Your task to perform on an android device: Do I have any events today? Image 0: 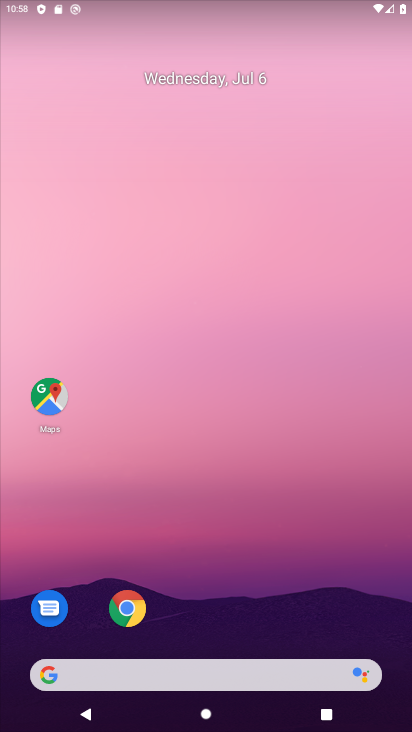
Step 0: click (186, 173)
Your task to perform on an android device: Do I have any events today? Image 1: 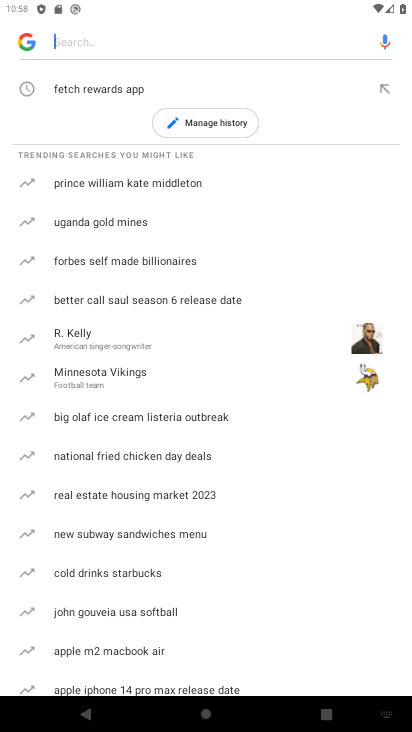
Step 1: press back button
Your task to perform on an android device: Do I have any events today? Image 2: 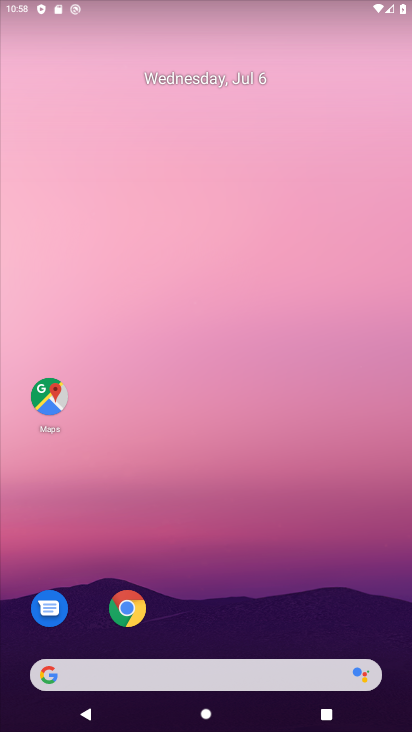
Step 2: drag from (228, 647) to (100, 171)
Your task to perform on an android device: Do I have any events today? Image 3: 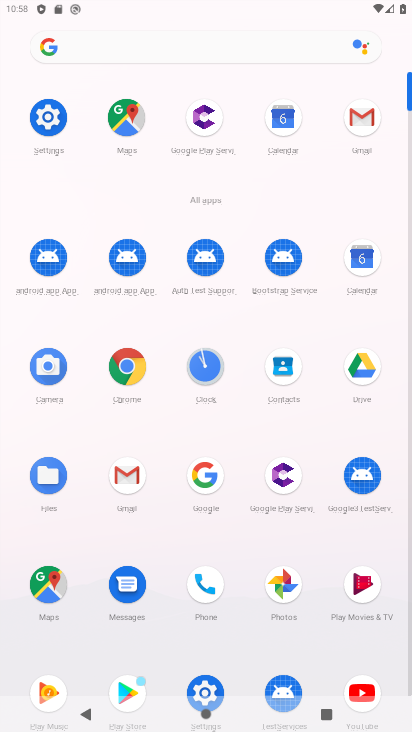
Step 3: click (357, 255)
Your task to perform on an android device: Do I have any events today? Image 4: 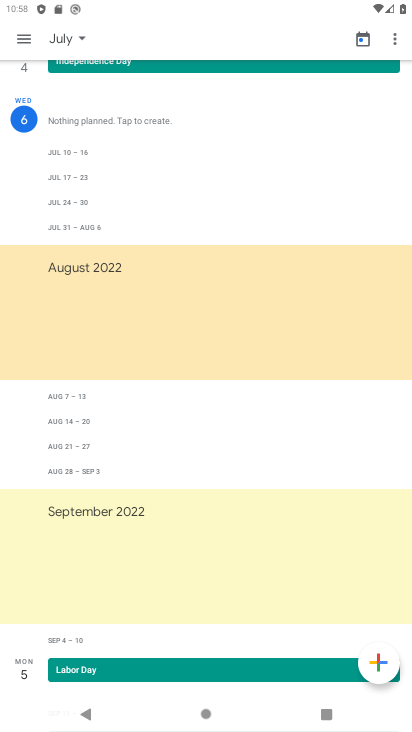
Step 4: drag from (84, 170) to (177, 642)
Your task to perform on an android device: Do I have any events today? Image 5: 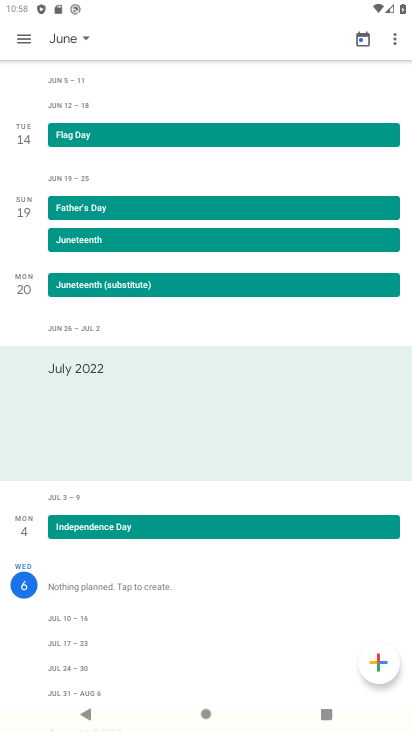
Step 5: drag from (129, 225) to (185, 731)
Your task to perform on an android device: Do I have any events today? Image 6: 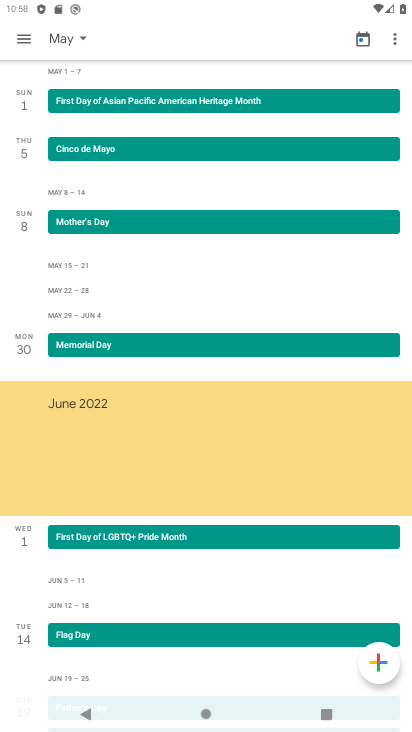
Step 6: drag from (155, 548) to (155, 682)
Your task to perform on an android device: Do I have any events today? Image 7: 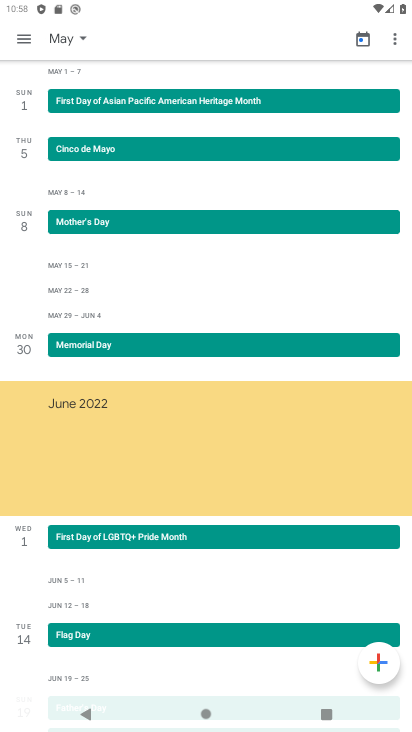
Step 7: click (86, 40)
Your task to perform on an android device: Do I have any events today? Image 8: 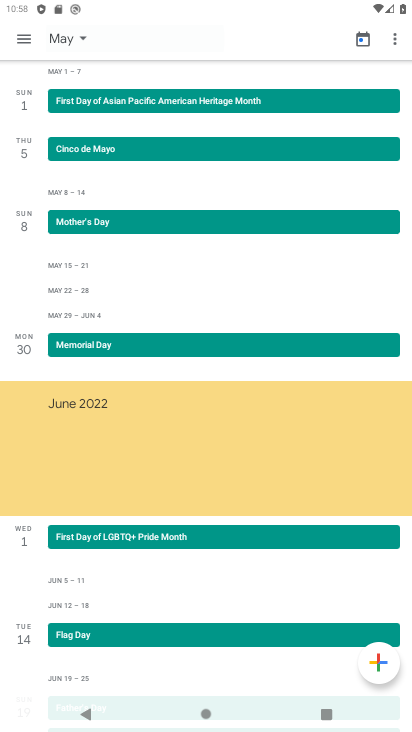
Step 8: click (86, 40)
Your task to perform on an android device: Do I have any events today? Image 9: 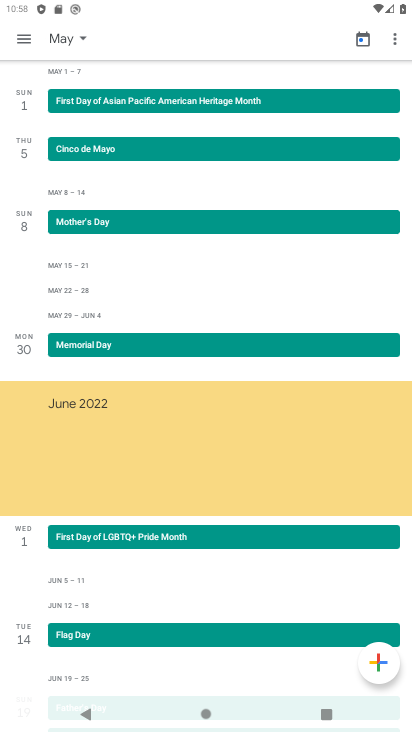
Step 9: click (86, 40)
Your task to perform on an android device: Do I have any events today? Image 10: 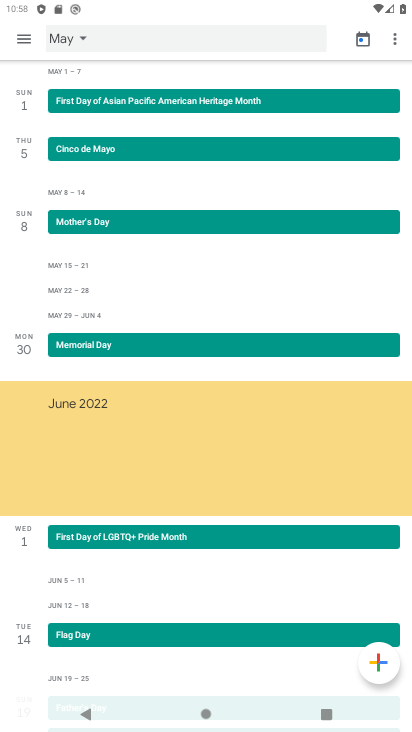
Step 10: click (86, 40)
Your task to perform on an android device: Do I have any events today? Image 11: 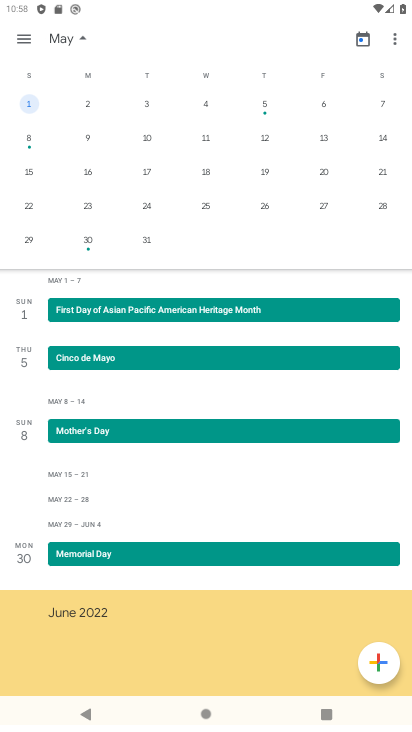
Step 11: click (86, 40)
Your task to perform on an android device: Do I have any events today? Image 12: 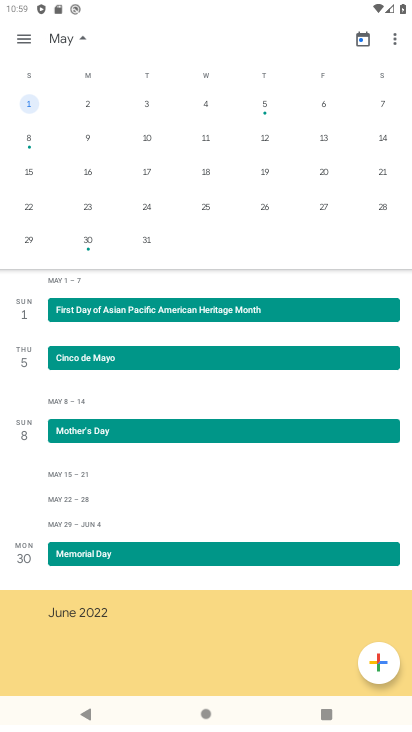
Step 12: click (79, 41)
Your task to perform on an android device: Do I have any events today? Image 13: 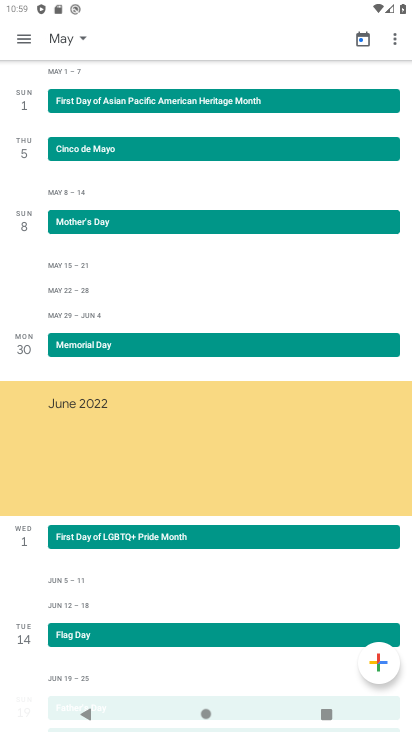
Step 13: drag from (202, 520) to (146, 138)
Your task to perform on an android device: Do I have any events today? Image 14: 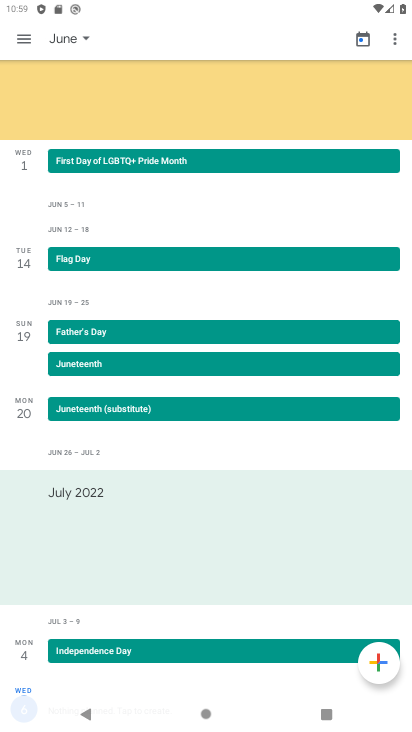
Step 14: drag from (169, 442) to (154, 201)
Your task to perform on an android device: Do I have any events today? Image 15: 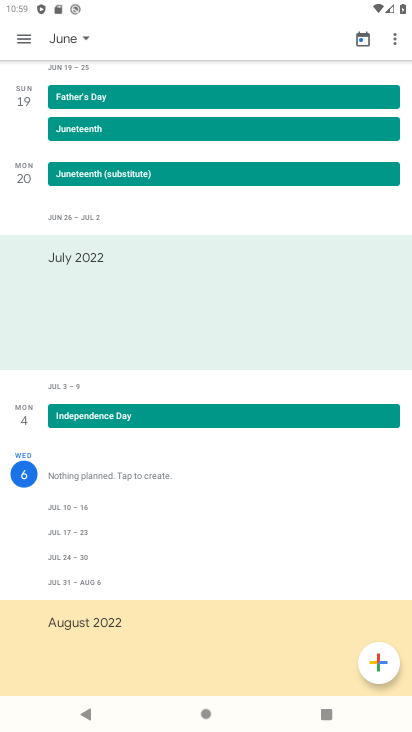
Step 15: click (90, 270)
Your task to perform on an android device: Do I have any events today? Image 16: 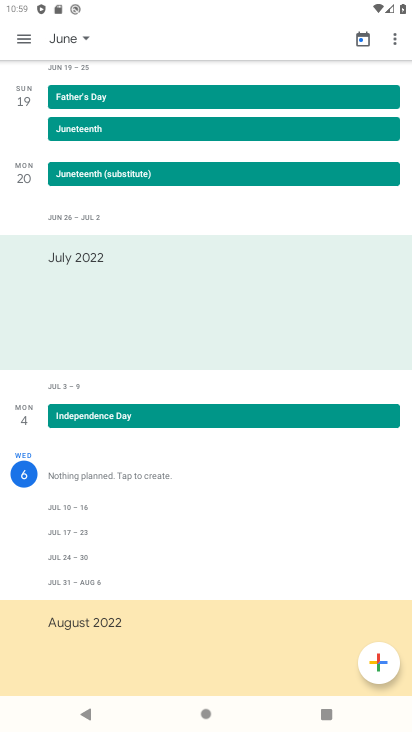
Step 16: click (93, 269)
Your task to perform on an android device: Do I have any events today? Image 17: 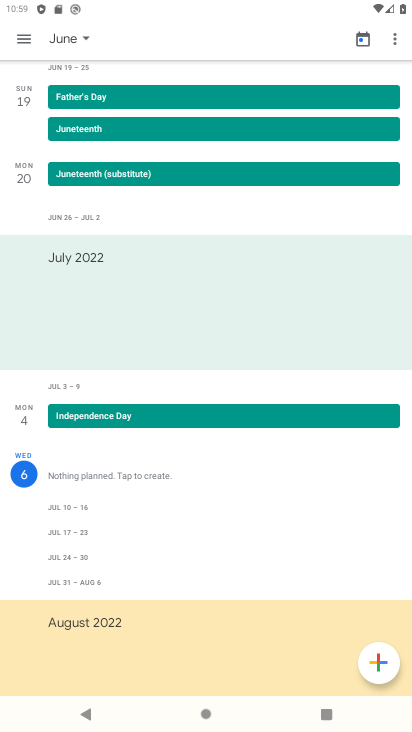
Step 17: click (94, 269)
Your task to perform on an android device: Do I have any events today? Image 18: 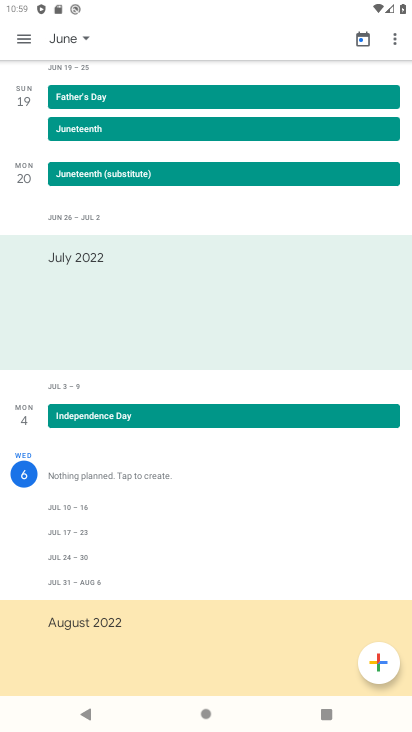
Step 18: click (94, 269)
Your task to perform on an android device: Do I have any events today? Image 19: 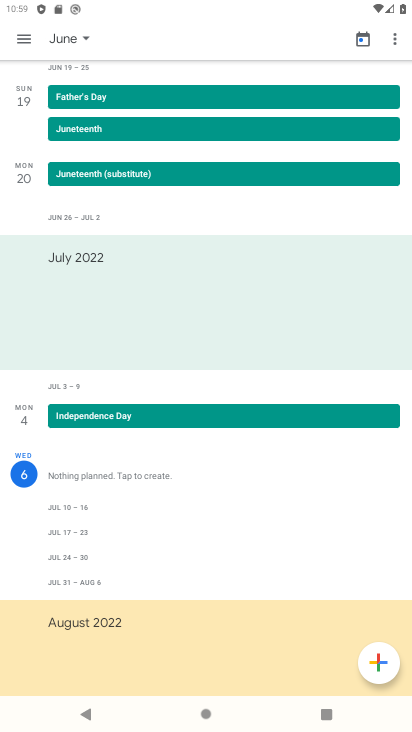
Step 19: click (98, 273)
Your task to perform on an android device: Do I have any events today? Image 20: 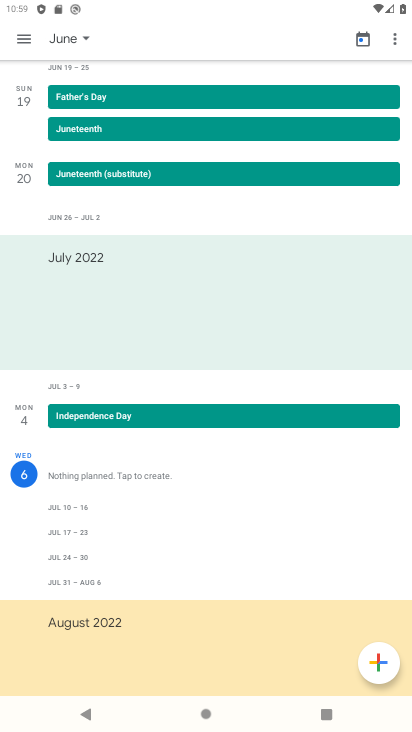
Step 20: click (102, 260)
Your task to perform on an android device: Do I have any events today? Image 21: 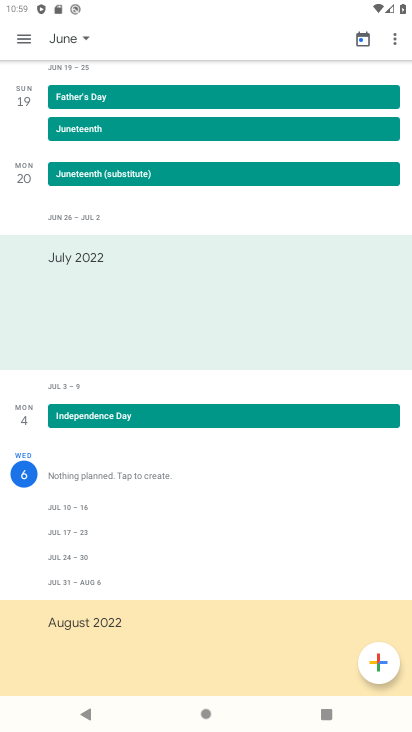
Step 21: click (102, 260)
Your task to perform on an android device: Do I have any events today? Image 22: 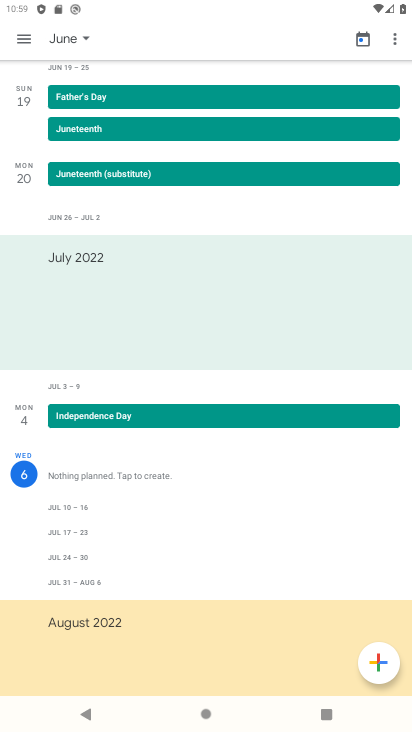
Step 22: click (121, 304)
Your task to perform on an android device: Do I have any events today? Image 23: 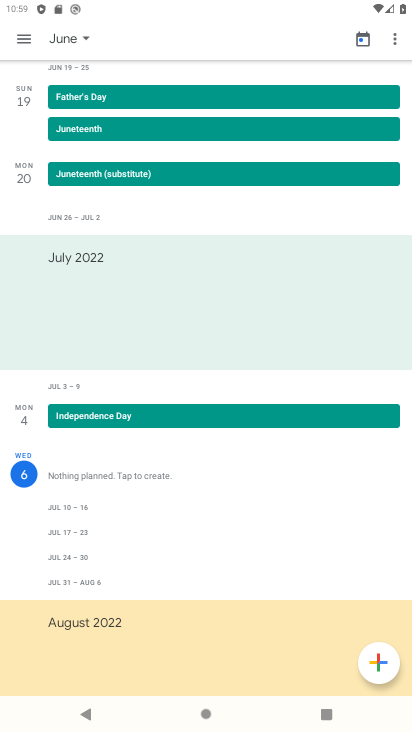
Step 23: drag from (105, 403) to (65, 265)
Your task to perform on an android device: Do I have any events today? Image 24: 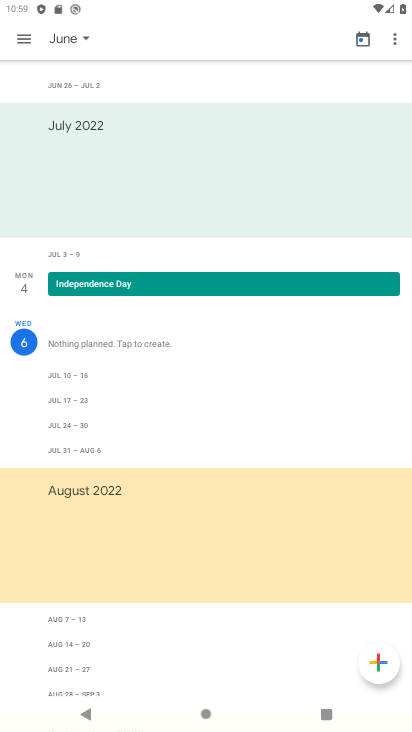
Step 24: click (81, 263)
Your task to perform on an android device: Do I have any events today? Image 25: 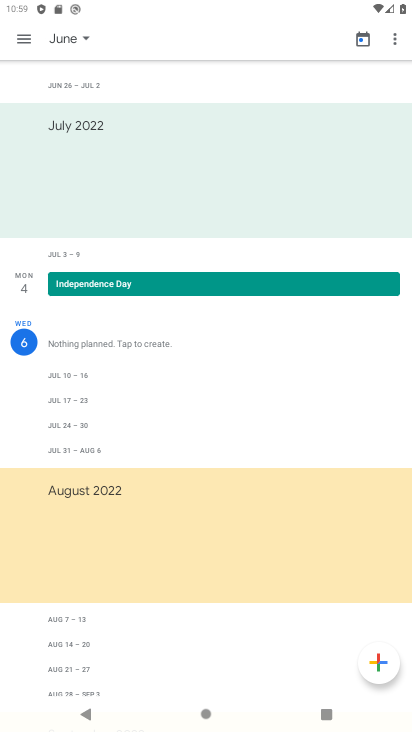
Step 25: click (85, 259)
Your task to perform on an android device: Do I have any events today? Image 26: 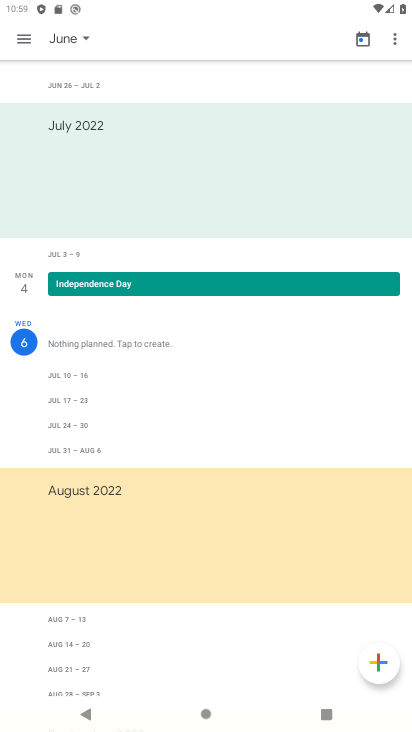
Step 26: click (111, 291)
Your task to perform on an android device: Do I have any events today? Image 27: 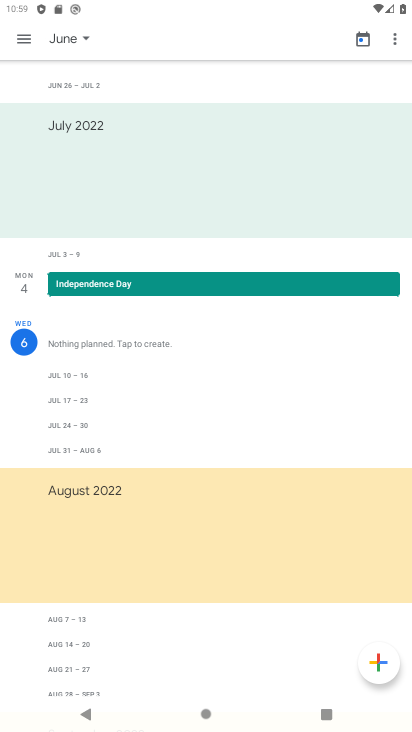
Step 27: click (153, 321)
Your task to perform on an android device: Do I have any events today? Image 28: 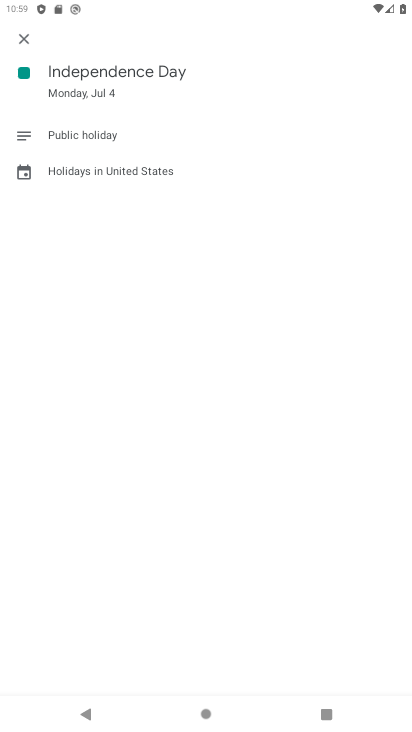
Step 28: click (93, 120)
Your task to perform on an android device: Do I have any events today? Image 29: 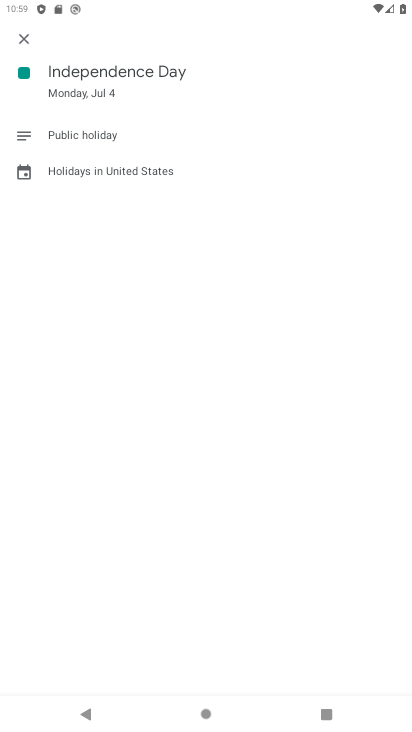
Step 29: click (98, 91)
Your task to perform on an android device: Do I have any events today? Image 30: 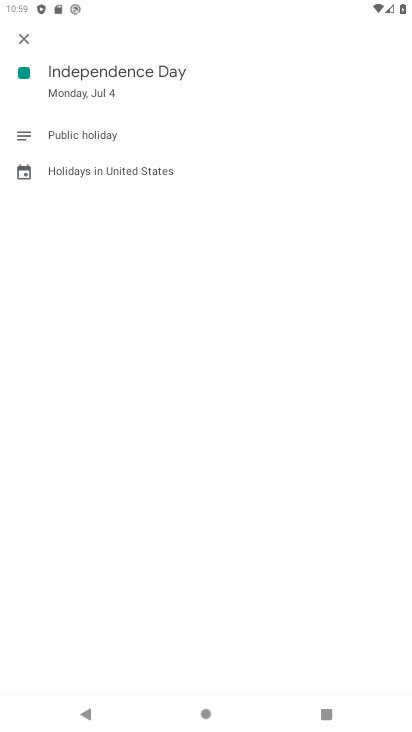
Step 30: click (94, 90)
Your task to perform on an android device: Do I have any events today? Image 31: 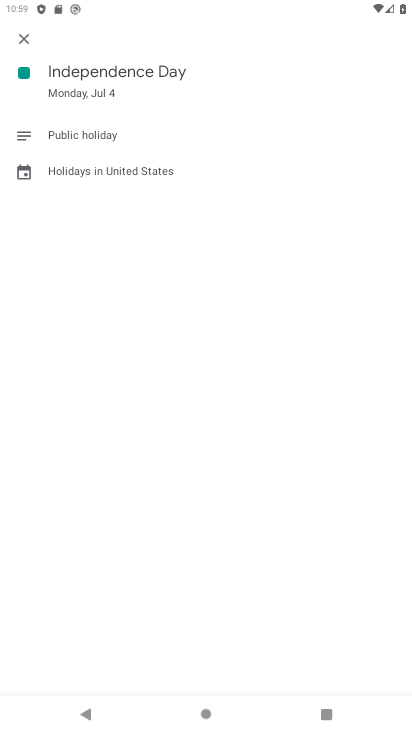
Step 31: click (95, 91)
Your task to perform on an android device: Do I have any events today? Image 32: 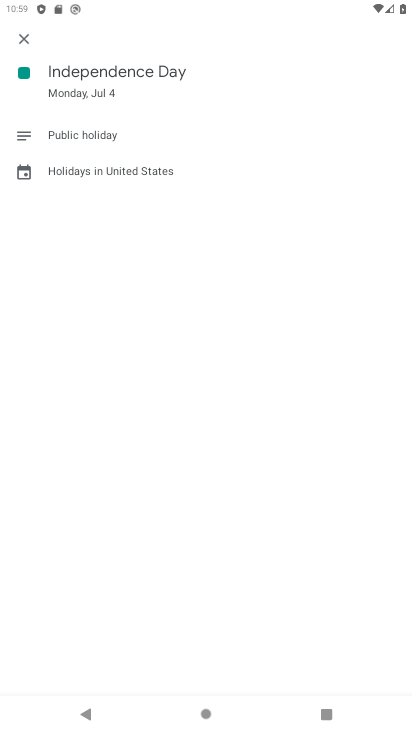
Step 32: click (100, 102)
Your task to perform on an android device: Do I have any events today? Image 33: 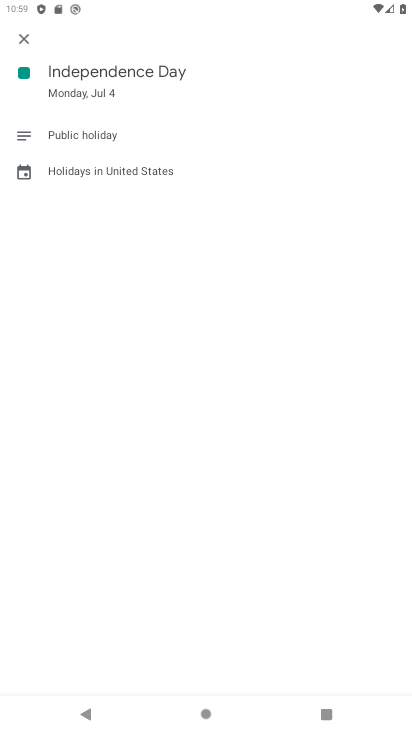
Step 33: task complete